Your task to perform on an android device: turn on data saver in the chrome app Image 0: 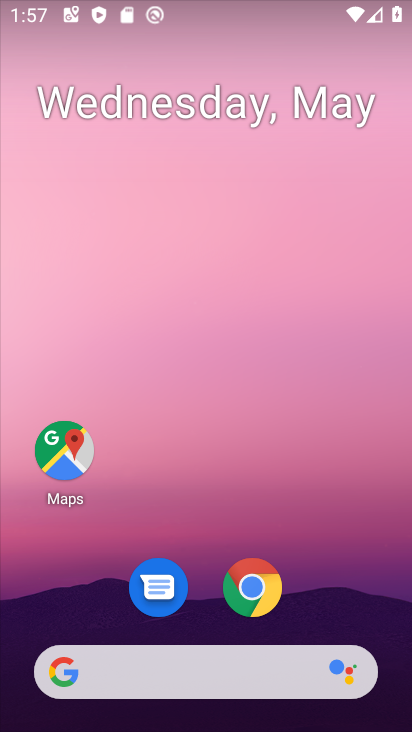
Step 0: click (260, 601)
Your task to perform on an android device: turn on data saver in the chrome app Image 1: 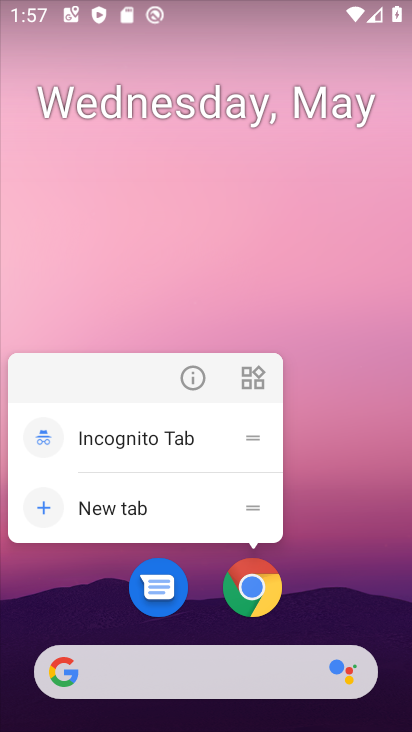
Step 1: click (260, 587)
Your task to perform on an android device: turn on data saver in the chrome app Image 2: 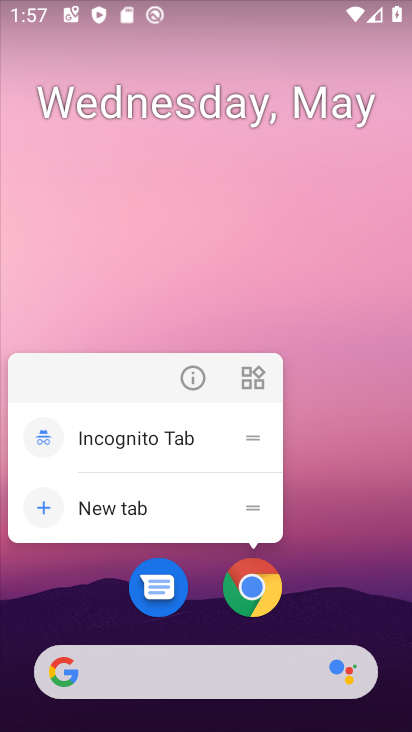
Step 2: click (255, 591)
Your task to perform on an android device: turn on data saver in the chrome app Image 3: 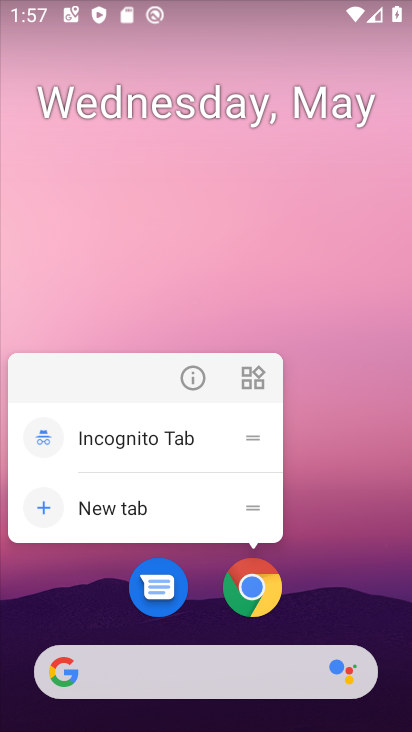
Step 3: click (249, 598)
Your task to perform on an android device: turn on data saver in the chrome app Image 4: 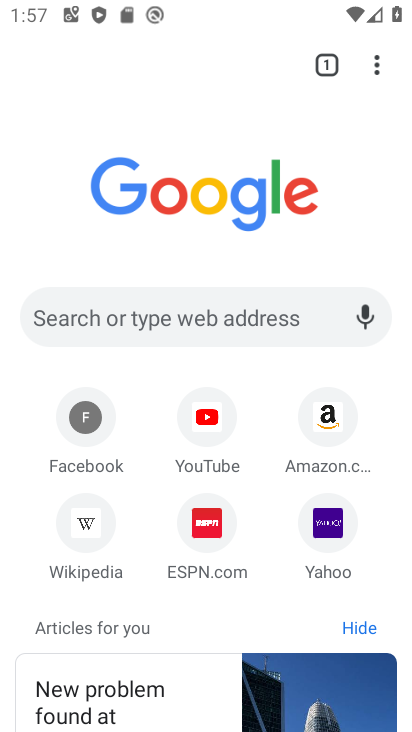
Step 4: drag from (381, 66) to (238, 558)
Your task to perform on an android device: turn on data saver in the chrome app Image 5: 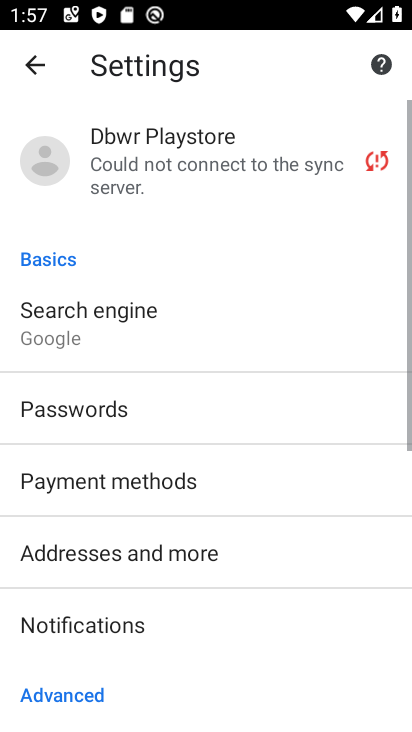
Step 5: drag from (203, 660) to (361, 292)
Your task to perform on an android device: turn on data saver in the chrome app Image 6: 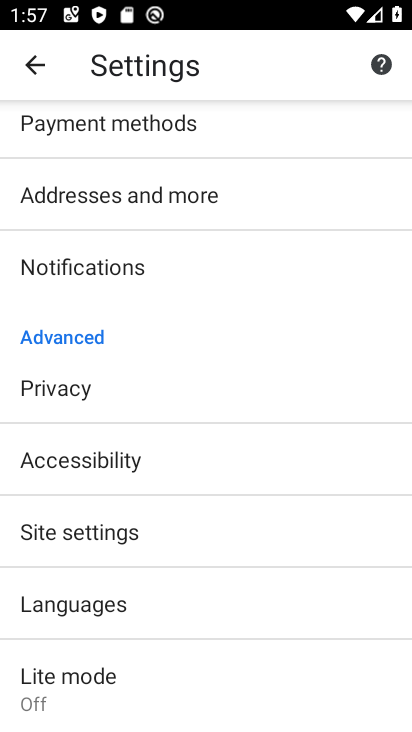
Step 6: drag from (179, 632) to (269, 391)
Your task to perform on an android device: turn on data saver in the chrome app Image 7: 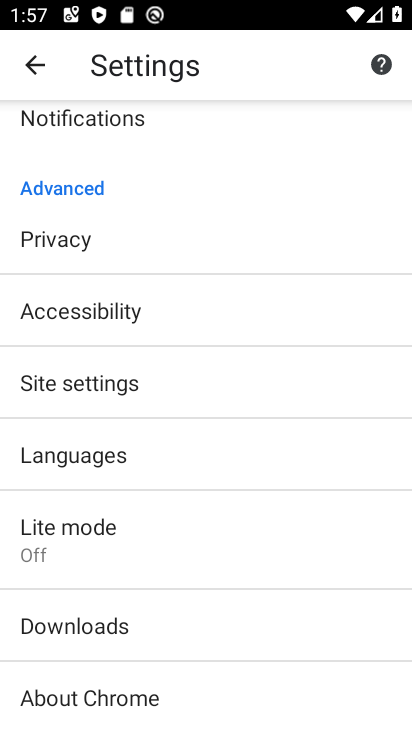
Step 7: click (175, 538)
Your task to perform on an android device: turn on data saver in the chrome app Image 8: 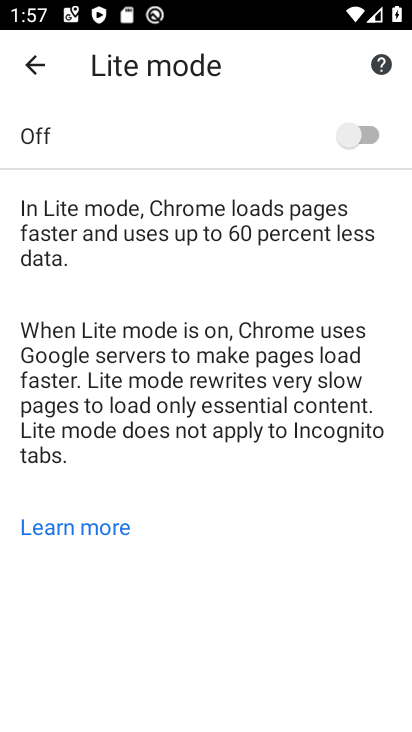
Step 8: click (396, 135)
Your task to perform on an android device: turn on data saver in the chrome app Image 9: 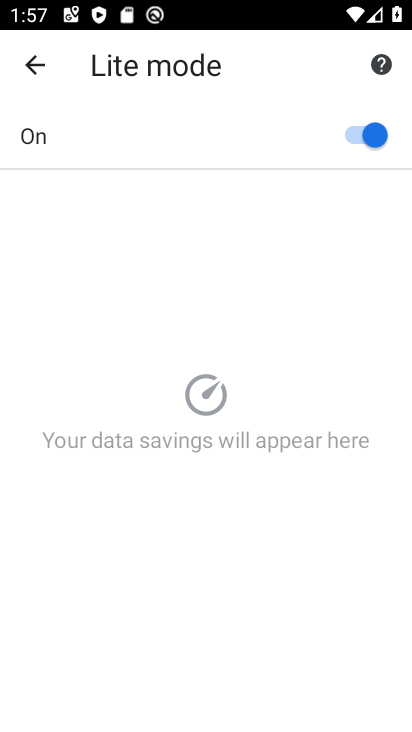
Step 9: task complete